Your task to perform on an android device: Set the phone to "Do not disturb". Image 0: 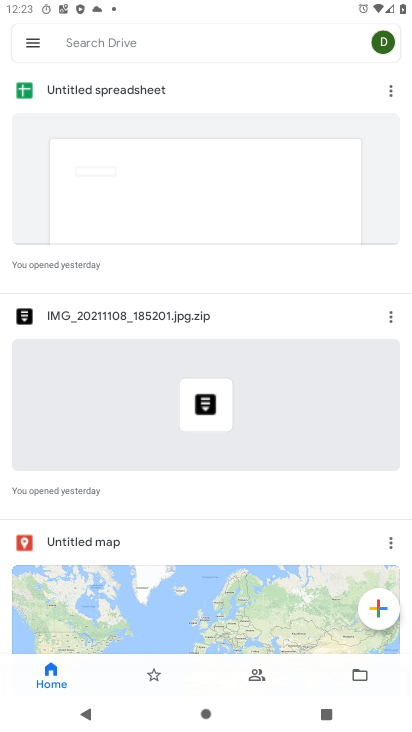
Step 0: press home button
Your task to perform on an android device: Set the phone to "Do not disturb". Image 1: 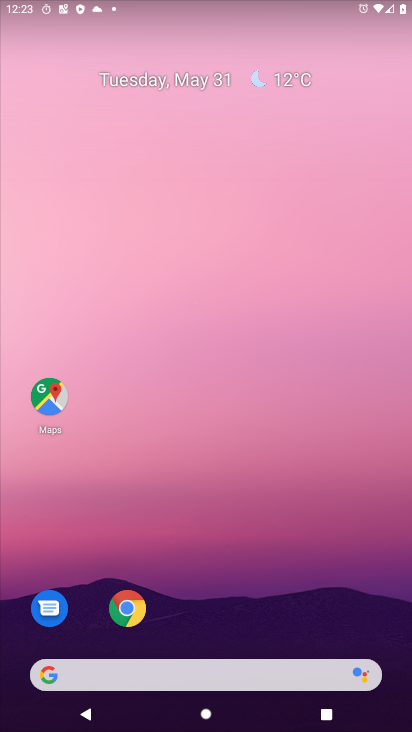
Step 1: drag from (273, 649) to (271, 69)
Your task to perform on an android device: Set the phone to "Do not disturb". Image 2: 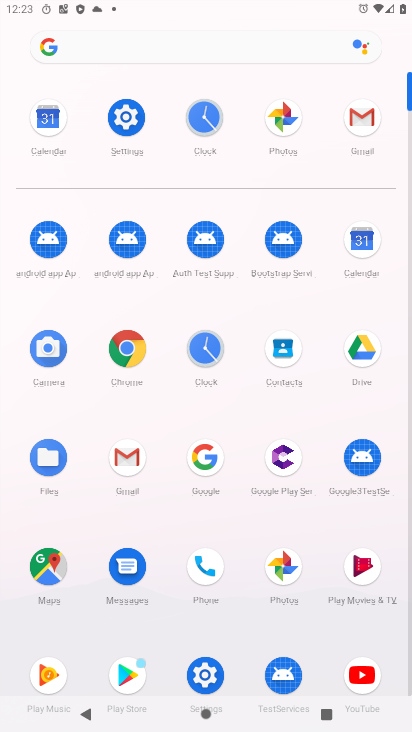
Step 2: click (123, 116)
Your task to perform on an android device: Set the phone to "Do not disturb". Image 3: 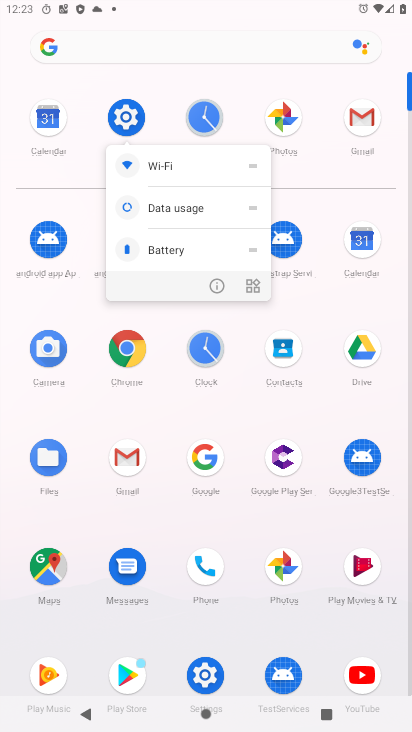
Step 3: click (123, 114)
Your task to perform on an android device: Set the phone to "Do not disturb". Image 4: 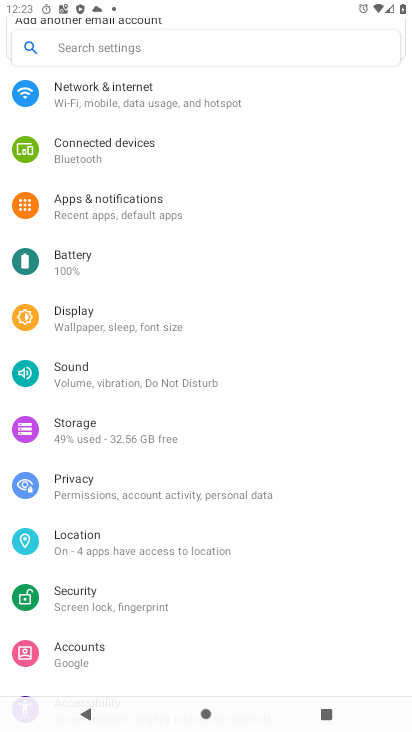
Step 4: click (59, 378)
Your task to perform on an android device: Set the phone to "Do not disturb". Image 5: 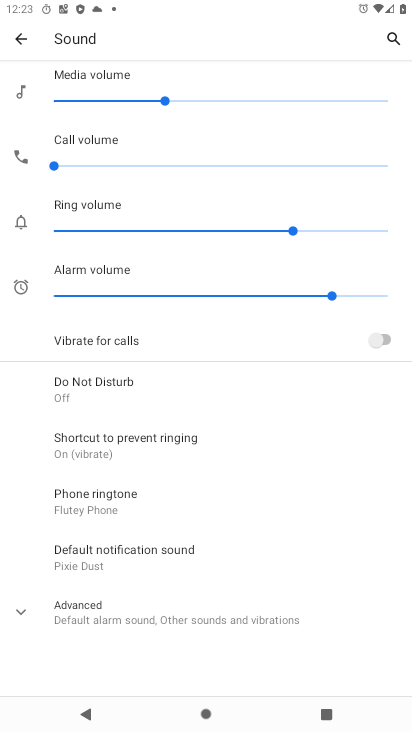
Step 5: click (62, 389)
Your task to perform on an android device: Set the phone to "Do not disturb". Image 6: 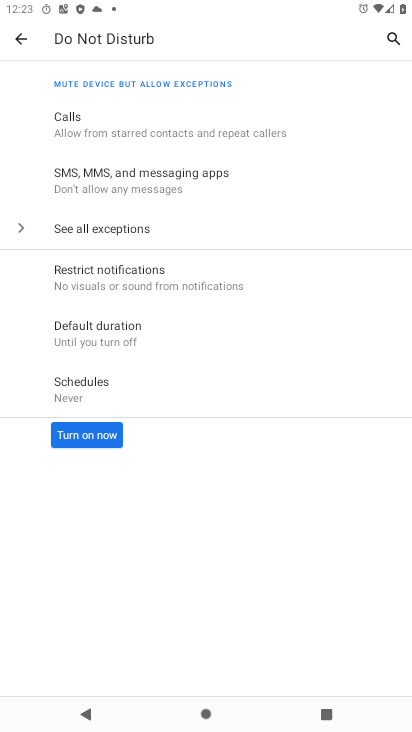
Step 6: click (76, 442)
Your task to perform on an android device: Set the phone to "Do not disturb". Image 7: 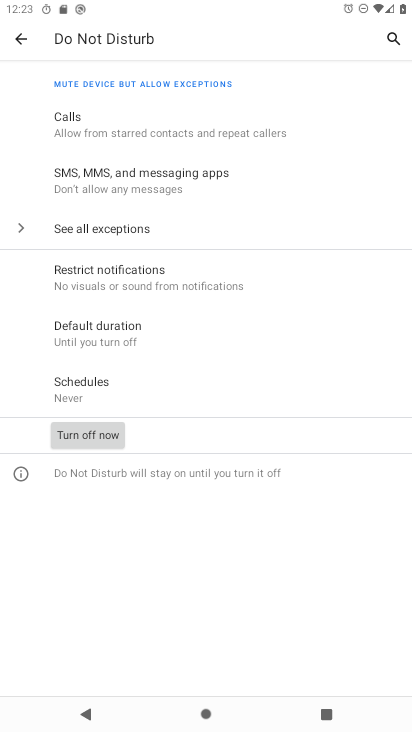
Step 7: task complete